Your task to perform on an android device: open app "Viber Messenger" (install if not already installed), go to login, and select forgot password Image 0: 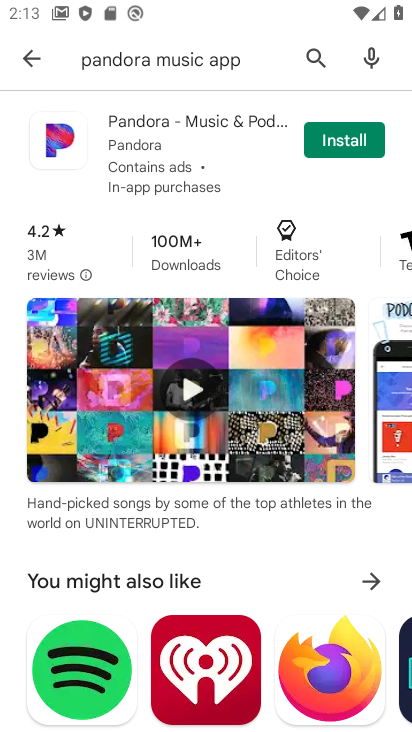
Step 0: click (314, 52)
Your task to perform on an android device: open app "Viber Messenger" (install if not already installed), go to login, and select forgot password Image 1: 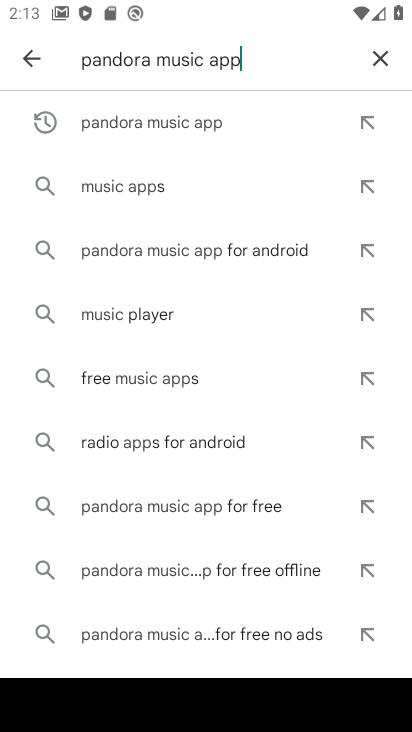
Step 1: click (382, 52)
Your task to perform on an android device: open app "Viber Messenger" (install if not already installed), go to login, and select forgot password Image 2: 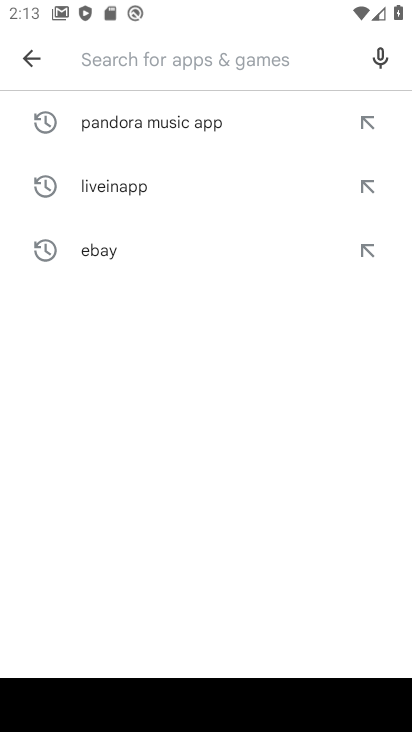
Step 2: click (107, 58)
Your task to perform on an android device: open app "Viber Messenger" (install if not already installed), go to login, and select forgot password Image 3: 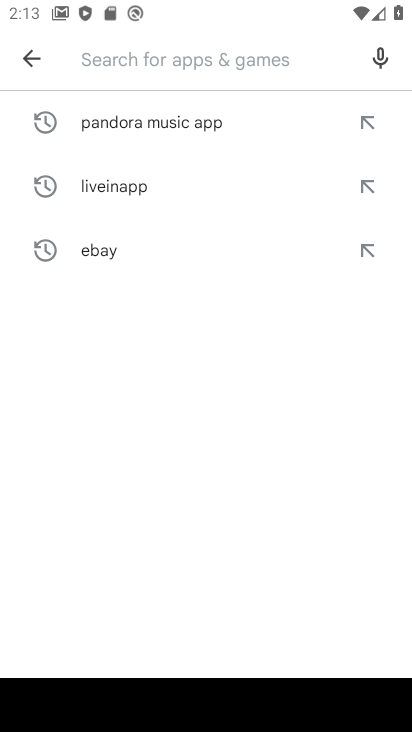
Step 3: type "viber messenger"
Your task to perform on an android device: open app "Viber Messenger" (install if not already installed), go to login, and select forgot password Image 4: 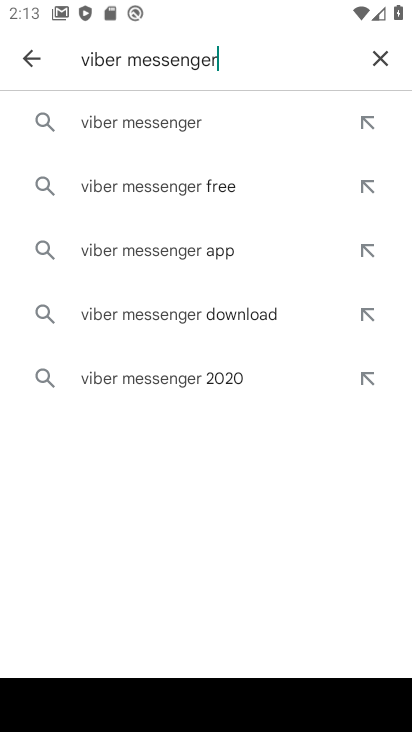
Step 4: click (143, 125)
Your task to perform on an android device: open app "Viber Messenger" (install if not already installed), go to login, and select forgot password Image 5: 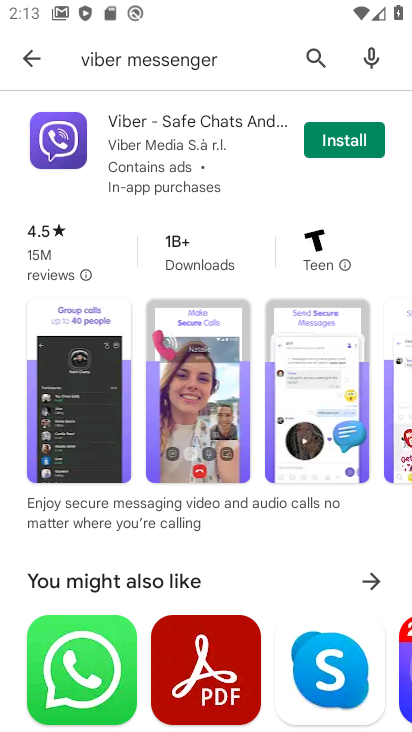
Step 5: click (348, 142)
Your task to perform on an android device: open app "Viber Messenger" (install if not already installed), go to login, and select forgot password Image 6: 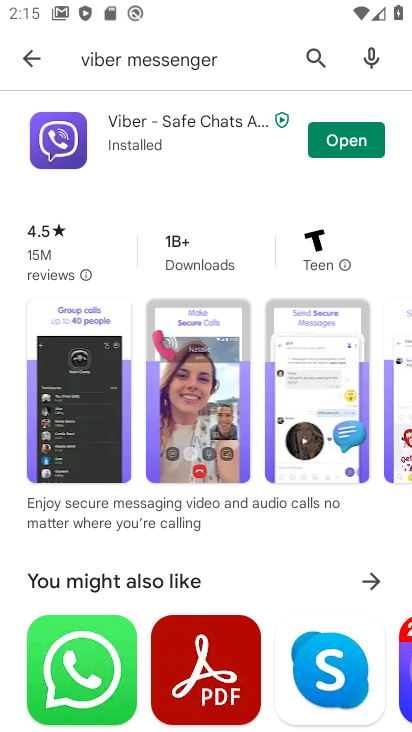
Step 6: click (323, 142)
Your task to perform on an android device: open app "Viber Messenger" (install if not already installed), go to login, and select forgot password Image 7: 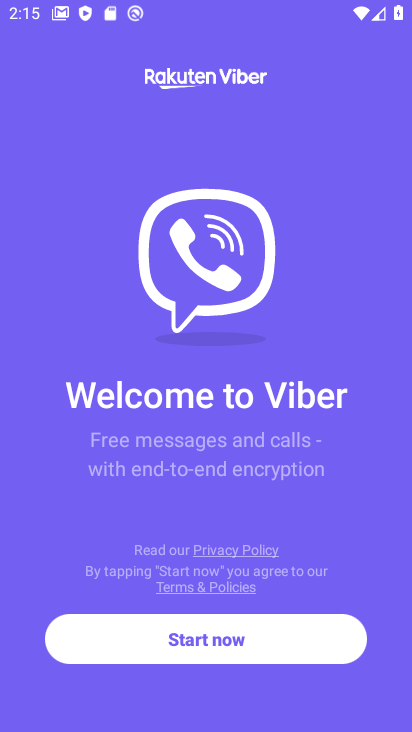
Step 7: click (327, 630)
Your task to perform on an android device: open app "Viber Messenger" (install if not already installed), go to login, and select forgot password Image 8: 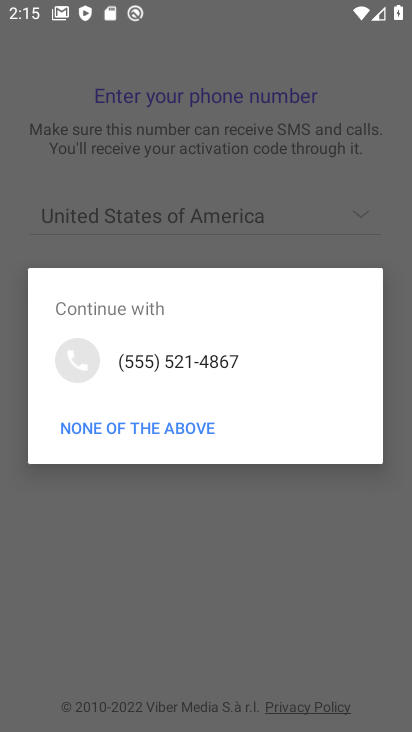
Step 8: click (207, 344)
Your task to perform on an android device: open app "Viber Messenger" (install if not already installed), go to login, and select forgot password Image 9: 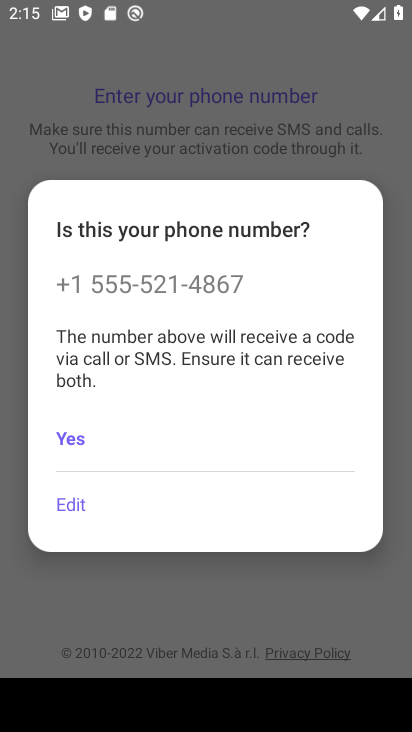
Step 9: task complete